Your task to perform on an android device: Go to network settings Image 0: 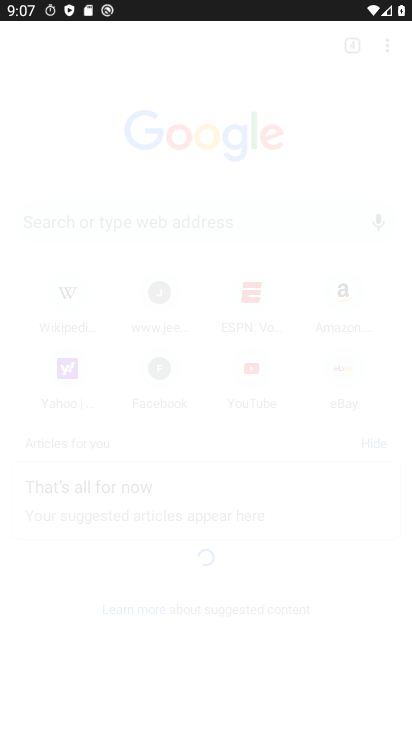
Step 0: drag from (222, 534) to (106, 128)
Your task to perform on an android device: Go to network settings Image 1: 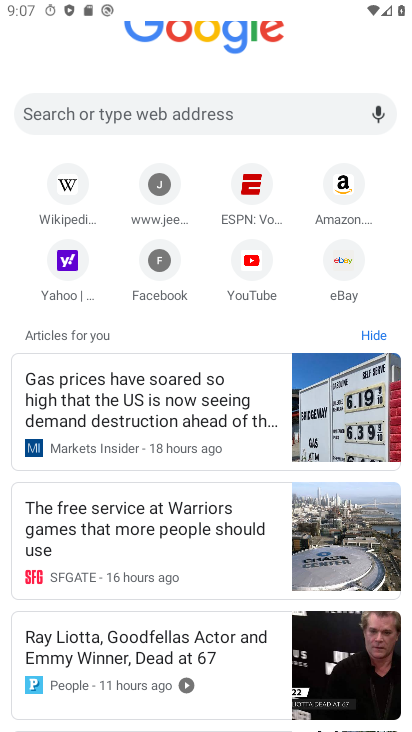
Step 1: press back button
Your task to perform on an android device: Go to network settings Image 2: 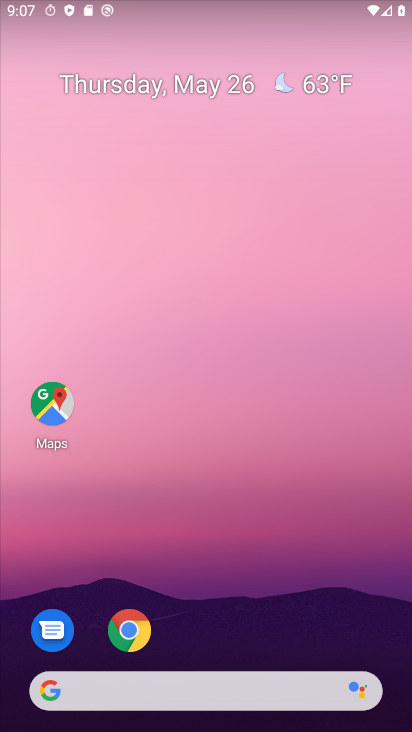
Step 2: drag from (219, 708) to (149, 157)
Your task to perform on an android device: Go to network settings Image 3: 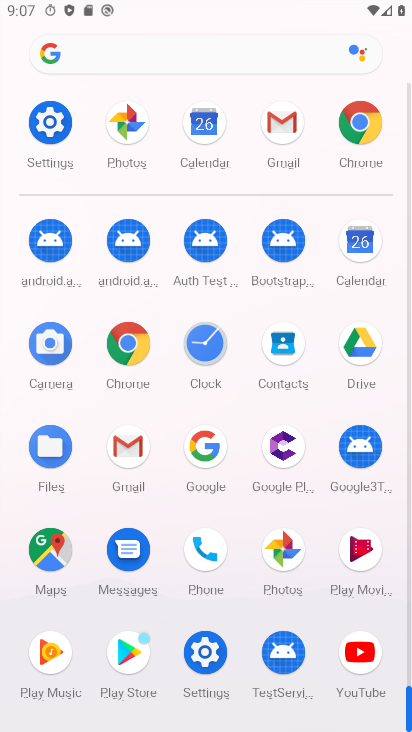
Step 3: click (48, 125)
Your task to perform on an android device: Go to network settings Image 4: 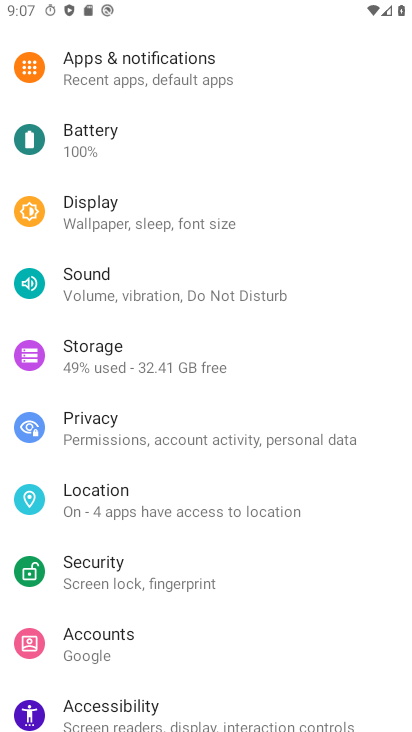
Step 4: drag from (128, 86) to (140, 467)
Your task to perform on an android device: Go to network settings Image 5: 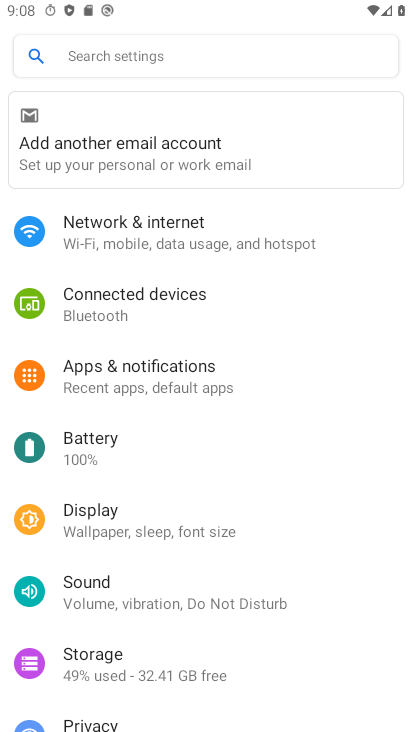
Step 5: click (132, 238)
Your task to perform on an android device: Go to network settings Image 6: 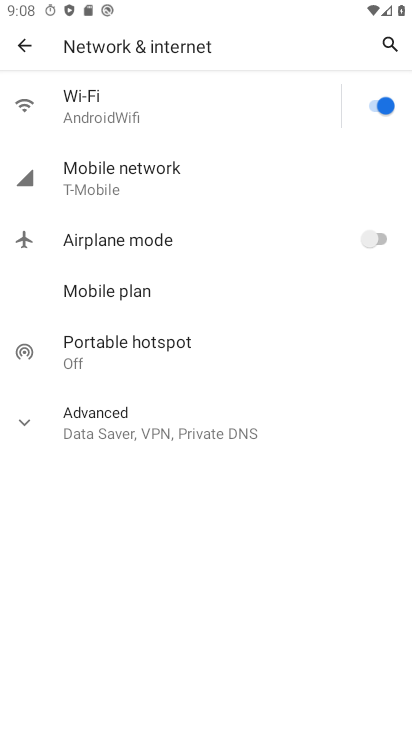
Step 6: task complete